Your task to perform on an android device: turn off picture-in-picture Image 0: 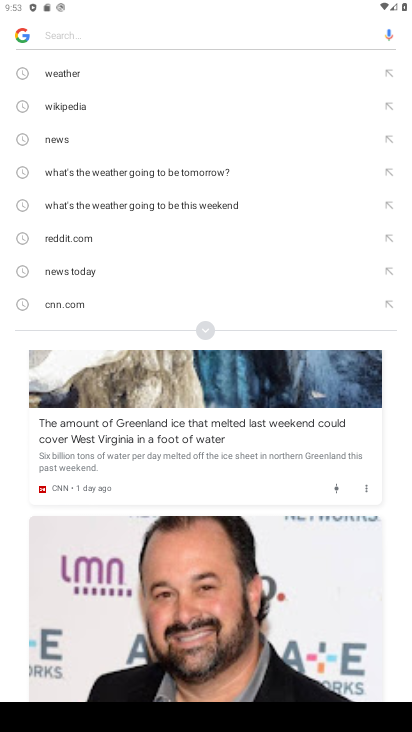
Step 0: press home button
Your task to perform on an android device: turn off picture-in-picture Image 1: 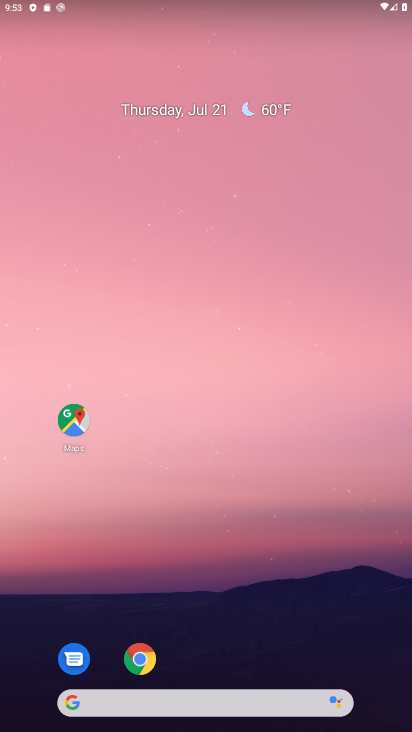
Step 1: click (146, 656)
Your task to perform on an android device: turn off picture-in-picture Image 2: 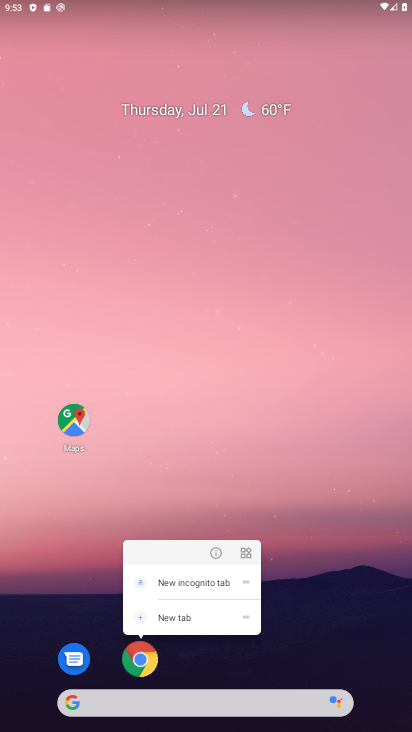
Step 2: click (144, 656)
Your task to perform on an android device: turn off picture-in-picture Image 3: 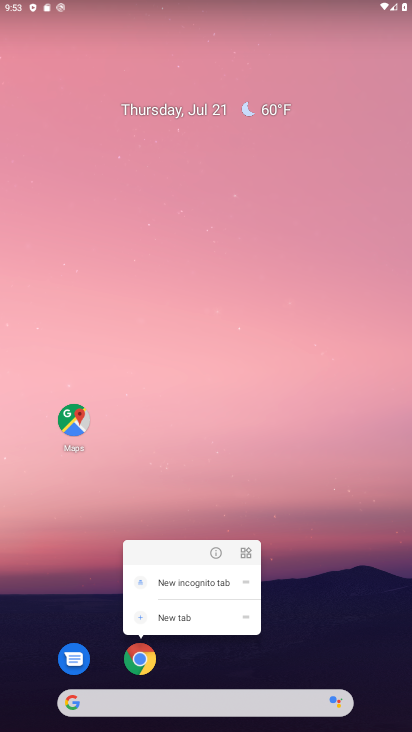
Step 3: click (215, 556)
Your task to perform on an android device: turn off picture-in-picture Image 4: 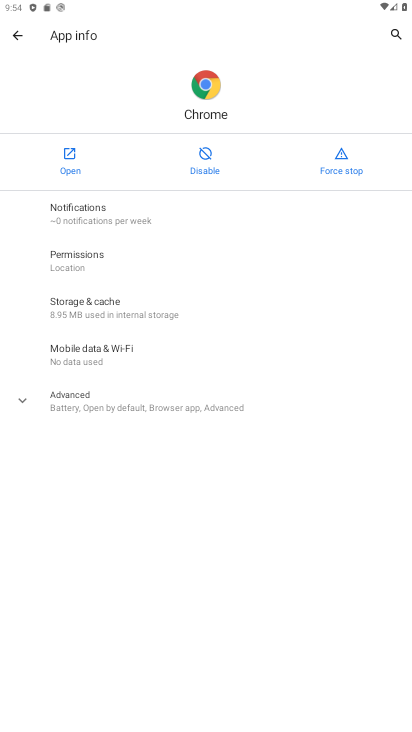
Step 4: click (110, 394)
Your task to perform on an android device: turn off picture-in-picture Image 5: 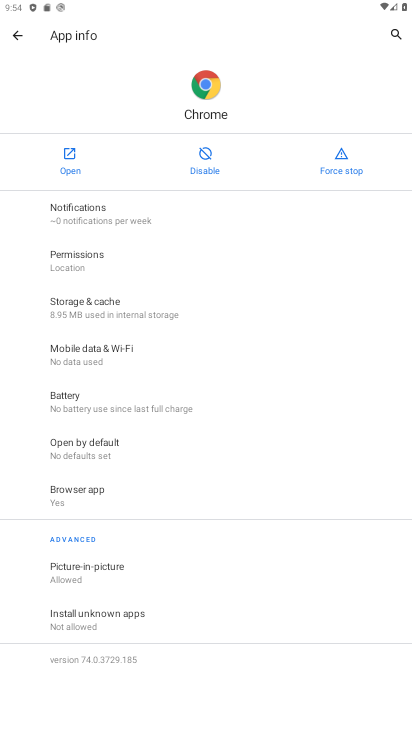
Step 5: click (90, 572)
Your task to perform on an android device: turn off picture-in-picture Image 6: 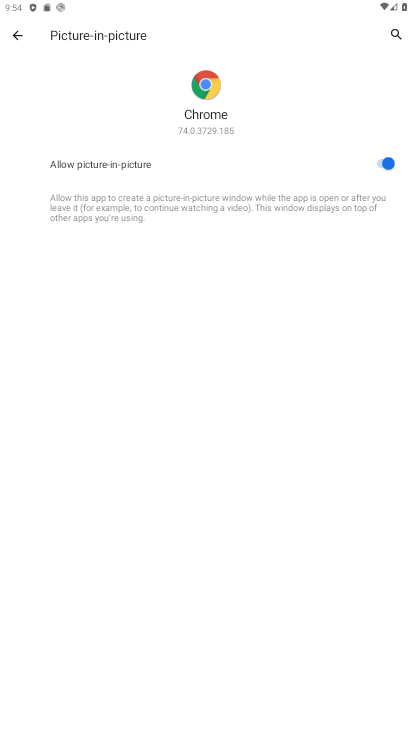
Step 6: click (382, 163)
Your task to perform on an android device: turn off picture-in-picture Image 7: 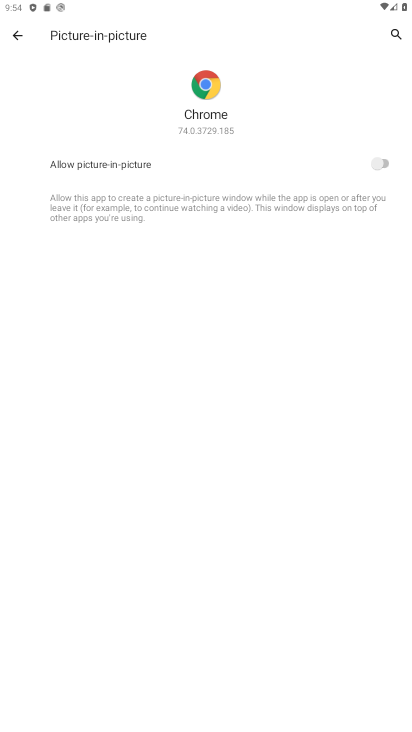
Step 7: task complete